Your task to perform on an android device: make emails show in primary in the gmail app Image 0: 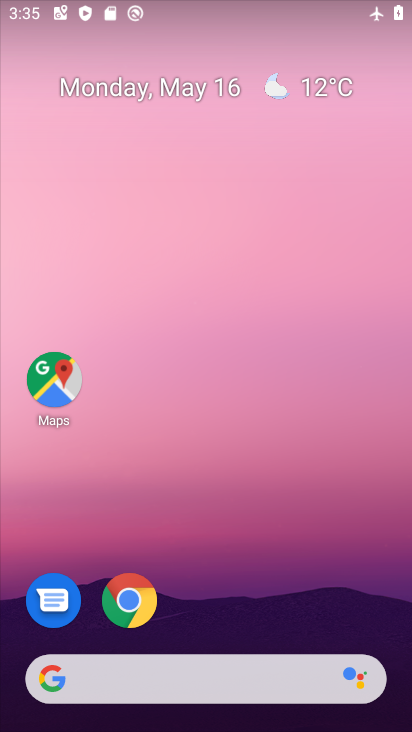
Step 0: drag from (223, 668) to (207, 12)
Your task to perform on an android device: make emails show in primary in the gmail app Image 1: 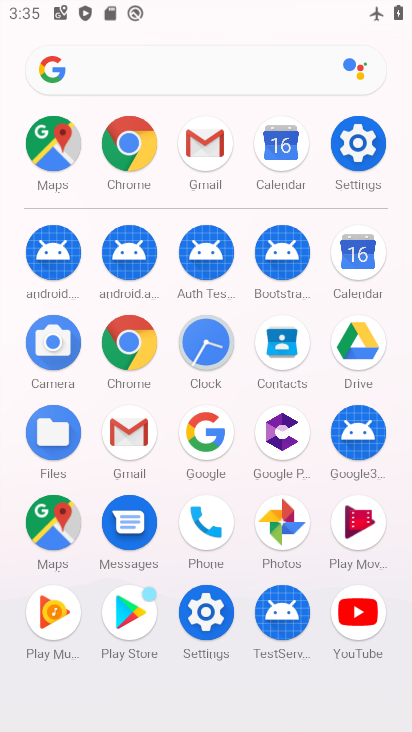
Step 1: click (123, 444)
Your task to perform on an android device: make emails show in primary in the gmail app Image 2: 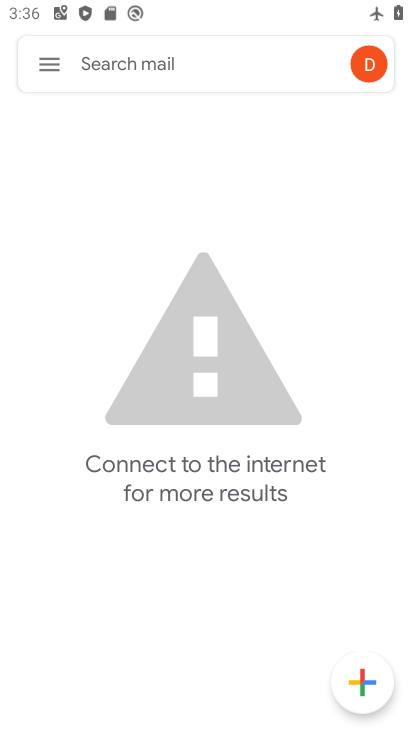
Step 2: click (42, 56)
Your task to perform on an android device: make emails show in primary in the gmail app Image 3: 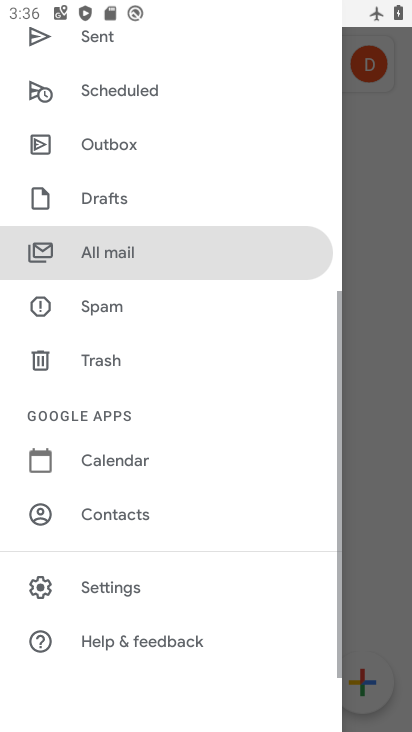
Step 3: drag from (120, 98) to (138, 669)
Your task to perform on an android device: make emails show in primary in the gmail app Image 4: 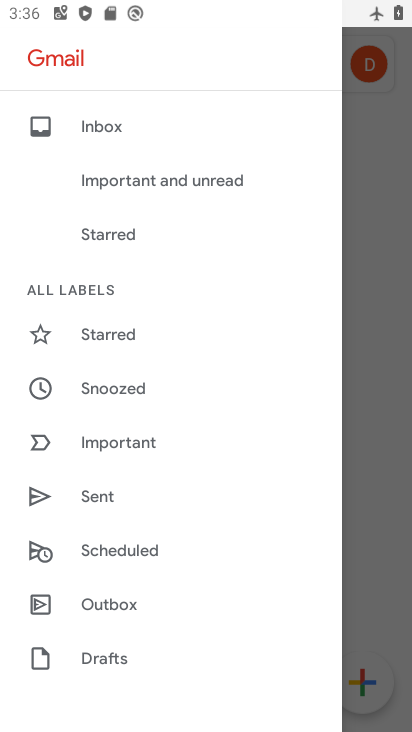
Step 4: drag from (161, 467) to (260, 8)
Your task to perform on an android device: make emails show in primary in the gmail app Image 5: 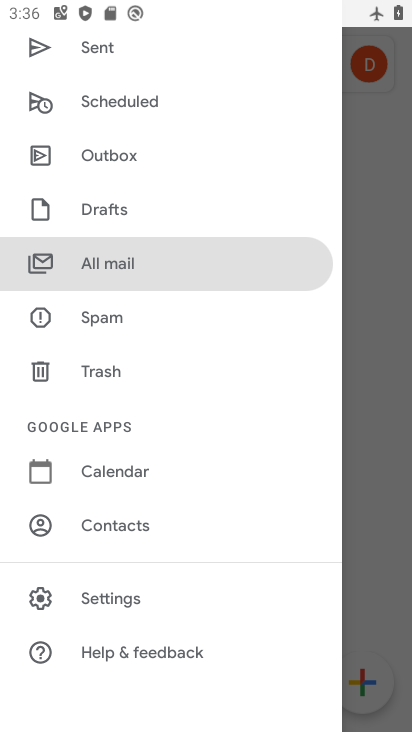
Step 5: click (106, 600)
Your task to perform on an android device: make emails show in primary in the gmail app Image 6: 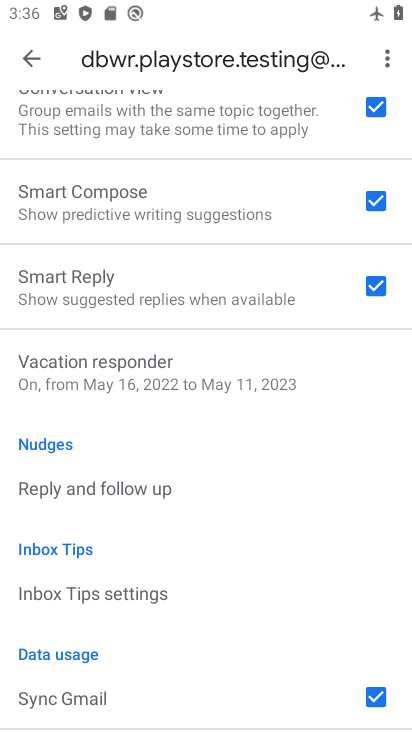
Step 6: drag from (208, 637) to (161, 156)
Your task to perform on an android device: make emails show in primary in the gmail app Image 7: 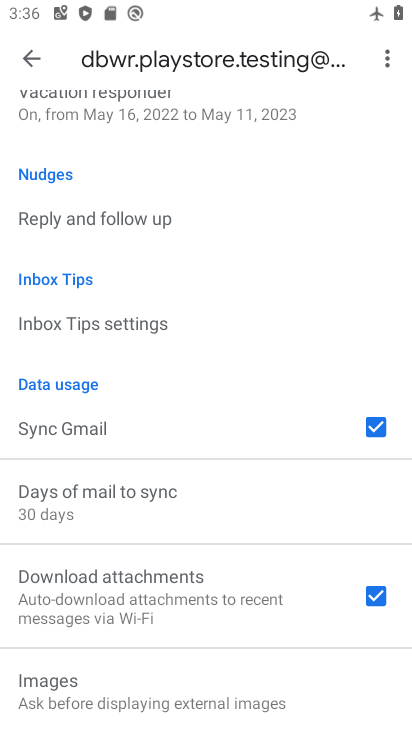
Step 7: drag from (91, 130) to (80, 721)
Your task to perform on an android device: make emails show in primary in the gmail app Image 8: 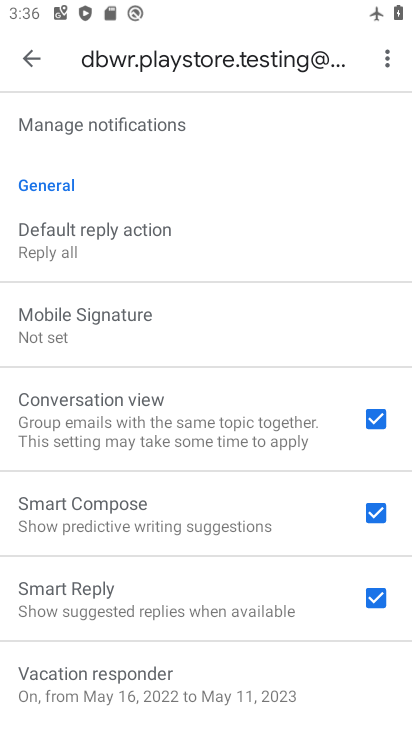
Step 8: drag from (73, 174) to (113, 689)
Your task to perform on an android device: make emails show in primary in the gmail app Image 9: 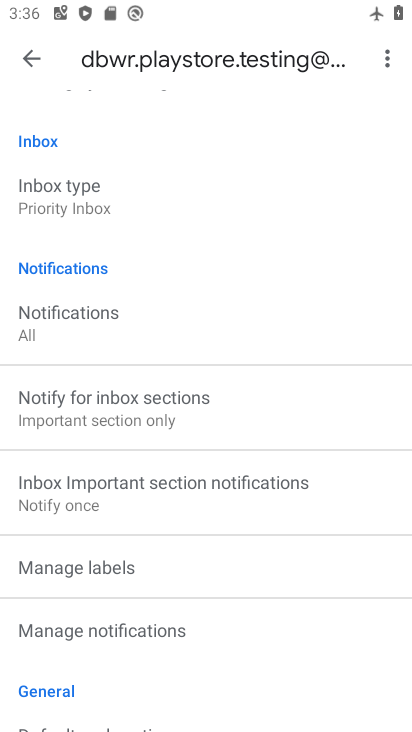
Step 9: click (69, 209)
Your task to perform on an android device: make emails show in primary in the gmail app Image 10: 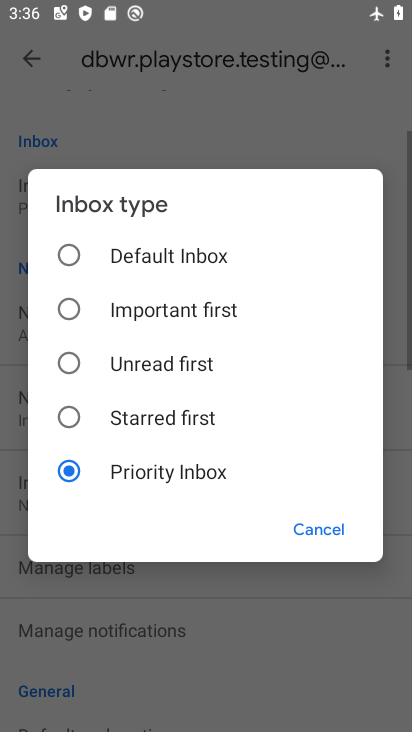
Step 10: click (106, 258)
Your task to perform on an android device: make emails show in primary in the gmail app Image 11: 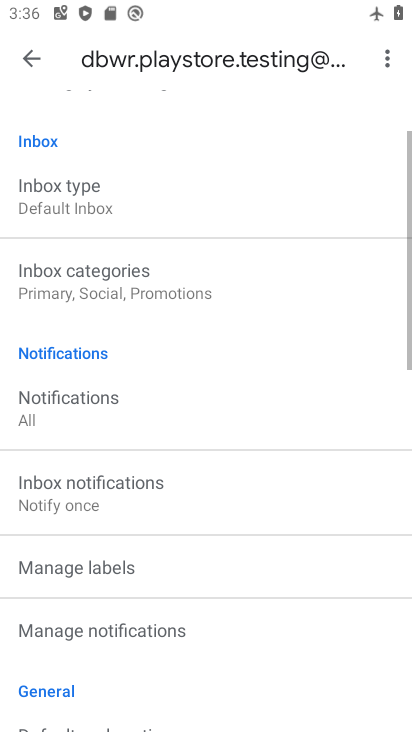
Step 11: click (37, 50)
Your task to perform on an android device: make emails show in primary in the gmail app Image 12: 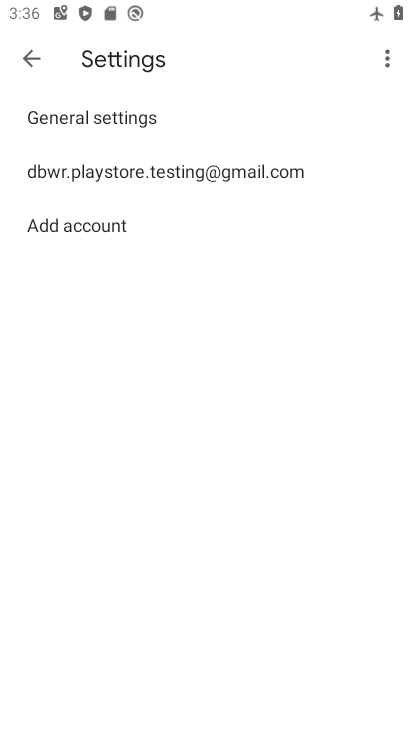
Step 12: click (37, 50)
Your task to perform on an android device: make emails show in primary in the gmail app Image 13: 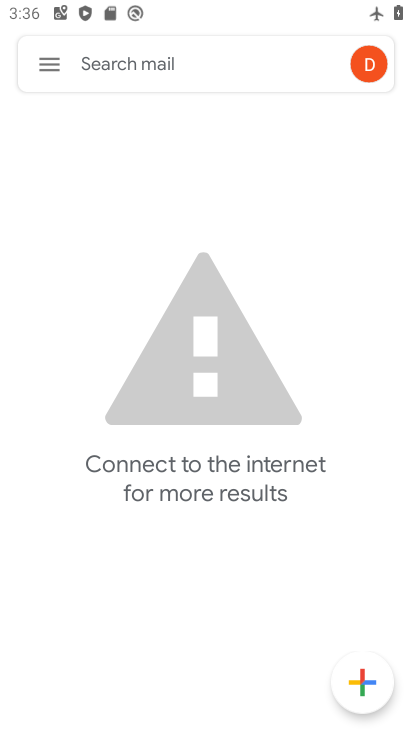
Step 13: click (33, 61)
Your task to perform on an android device: make emails show in primary in the gmail app Image 14: 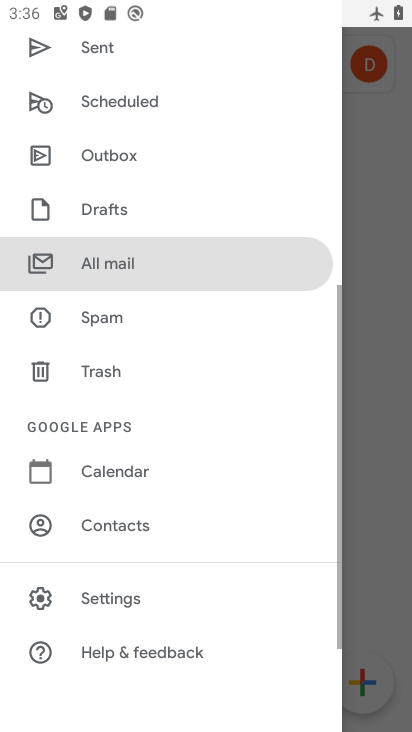
Step 14: drag from (88, 108) to (109, 621)
Your task to perform on an android device: make emails show in primary in the gmail app Image 15: 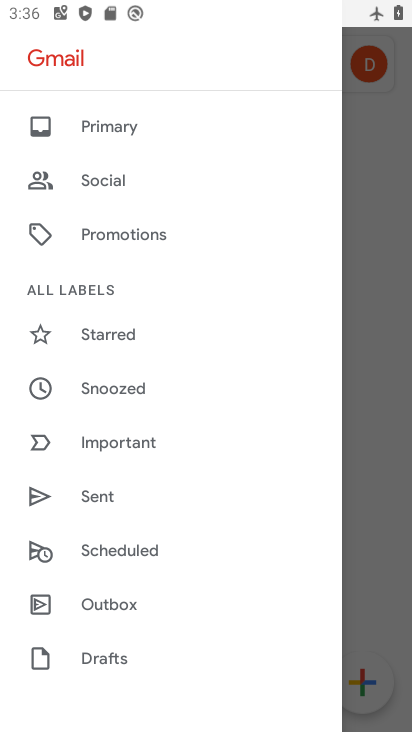
Step 15: click (108, 133)
Your task to perform on an android device: make emails show in primary in the gmail app Image 16: 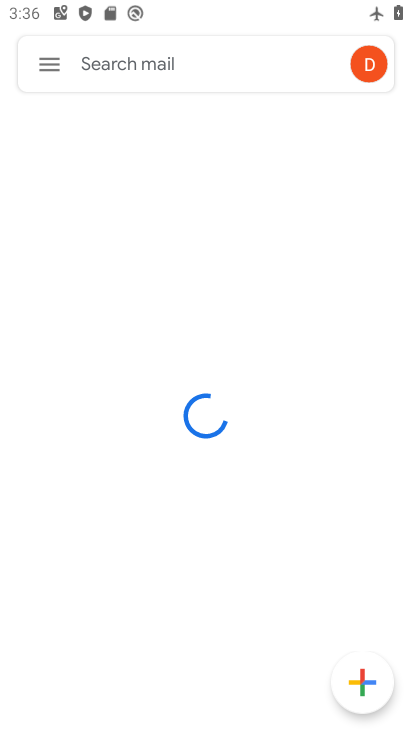
Step 16: task complete